Your task to perform on an android device: toggle location history Image 0: 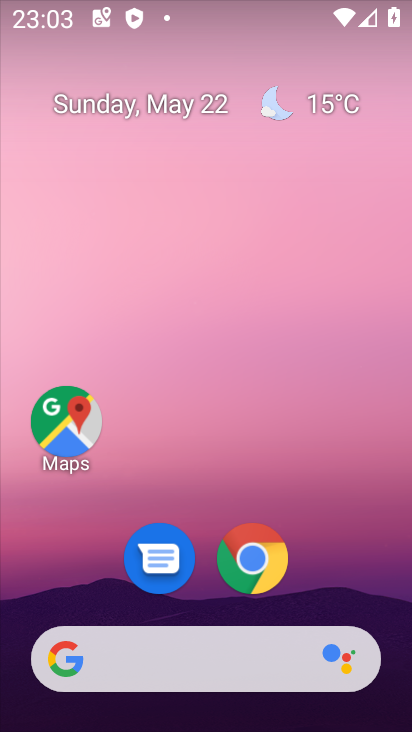
Step 0: click (69, 412)
Your task to perform on an android device: toggle location history Image 1: 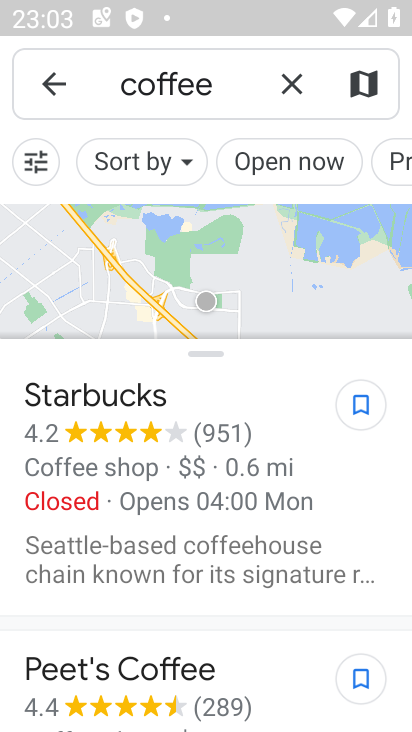
Step 1: click (283, 91)
Your task to perform on an android device: toggle location history Image 2: 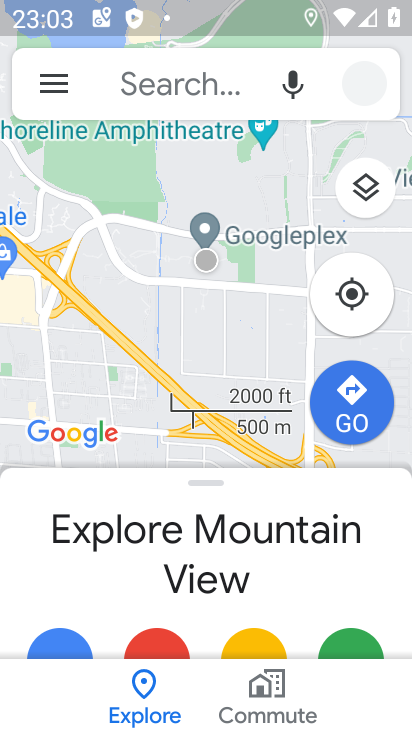
Step 2: click (58, 86)
Your task to perform on an android device: toggle location history Image 3: 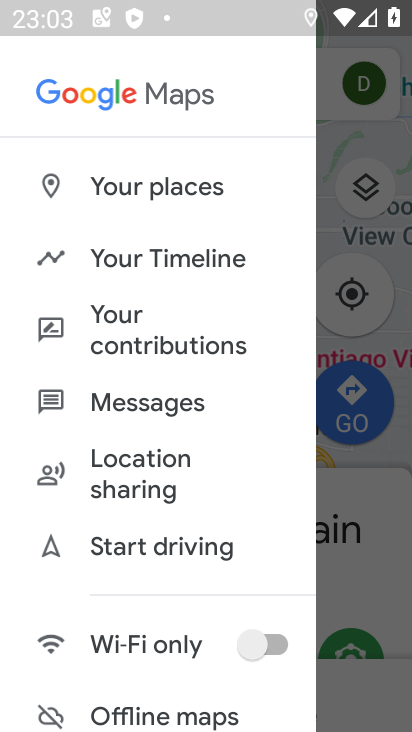
Step 3: click (150, 268)
Your task to perform on an android device: toggle location history Image 4: 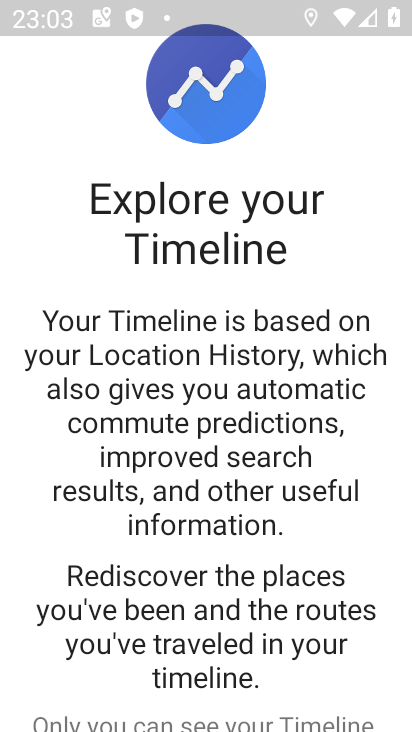
Step 4: drag from (239, 516) to (242, 173)
Your task to perform on an android device: toggle location history Image 5: 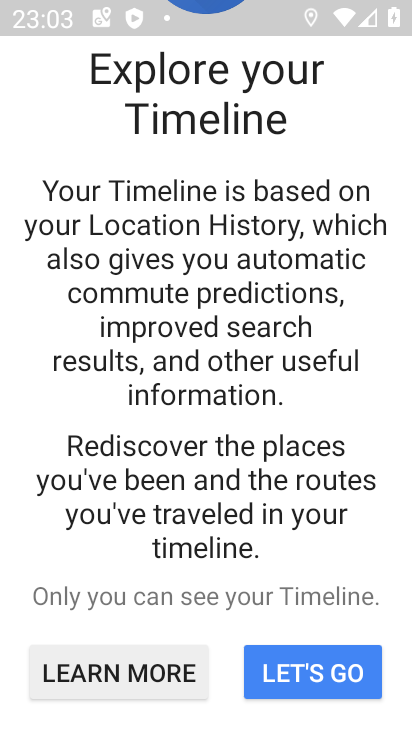
Step 5: click (311, 678)
Your task to perform on an android device: toggle location history Image 6: 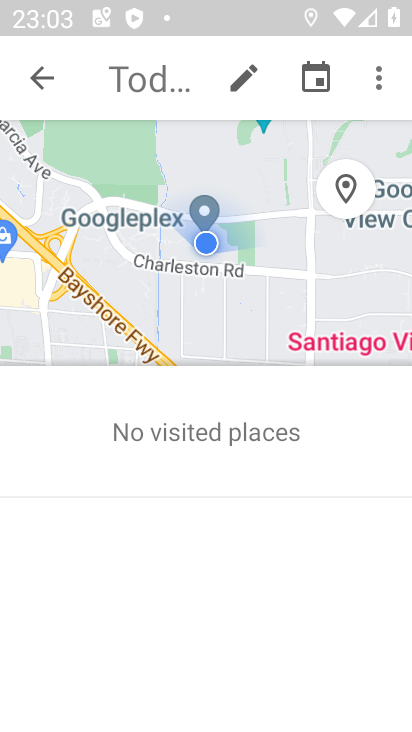
Step 6: click (376, 78)
Your task to perform on an android device: toggle location history Image 7: 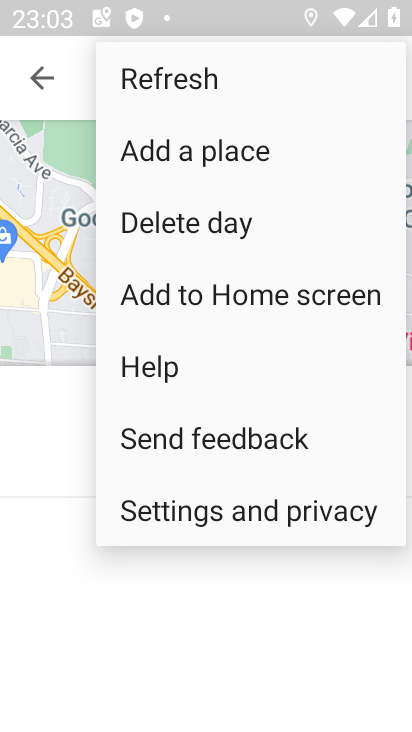
Step 7: click (158, 518)
Your task to perform on an android device: toggle location history Image 8: 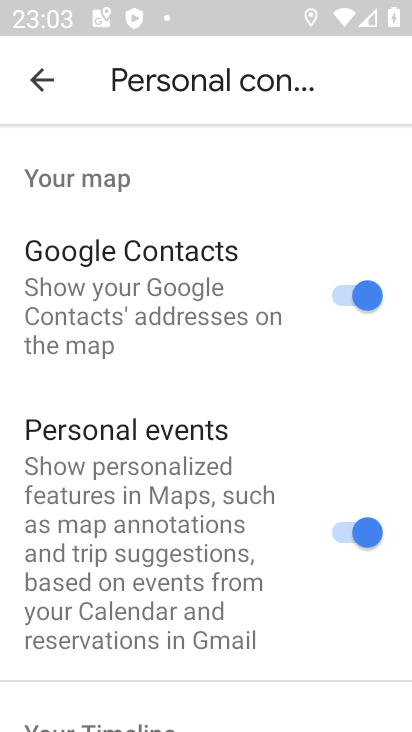
Step 8: drag from (140, 612) to (166, 139)
Your task to perform on an android device: toggle location history Image 9: 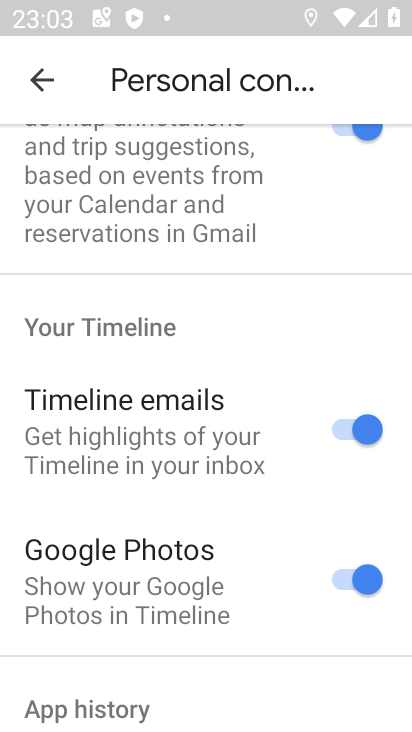
Step 9: drag from (139, 539) to (154, 156)
Your task to perform on an android device: toggle location history Image 10: 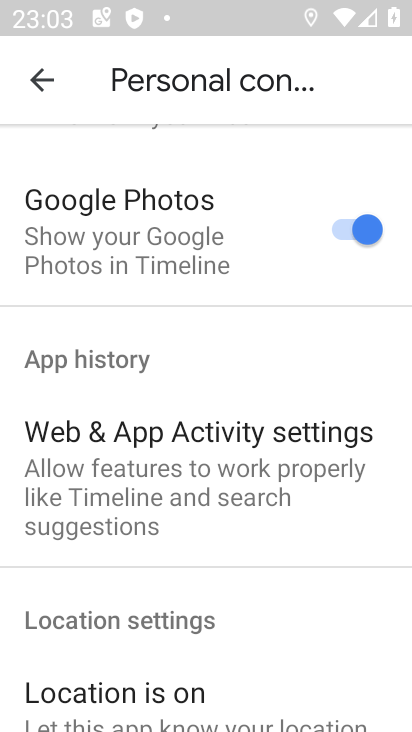
Step 10: drag from (130, 510) to (139, 178)
Your task to perform on an android device: toggle location history Image 11: 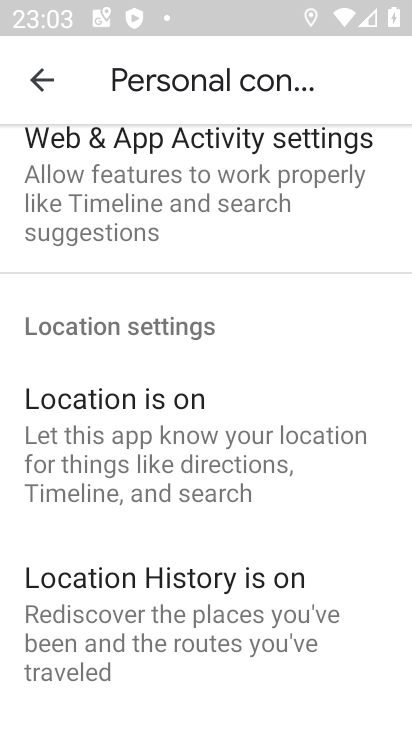
Step 11: click (115, 613)
Your task to perform on an android device: toggle location history Image 12: 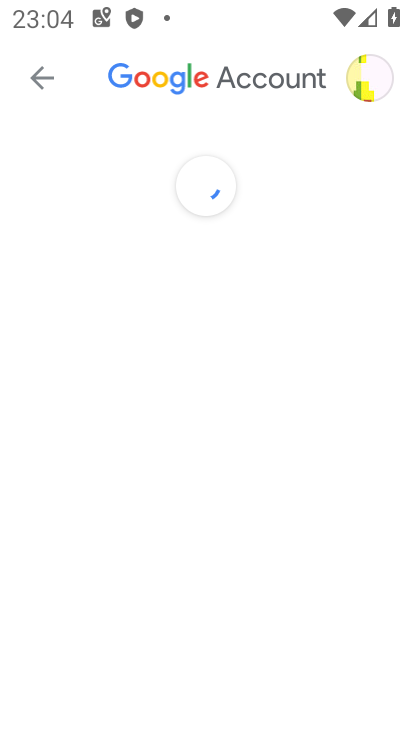
Step 12: drag from (189, 534) to (196, 88)
Your task to perform on an android device: toggle location history Image 13: 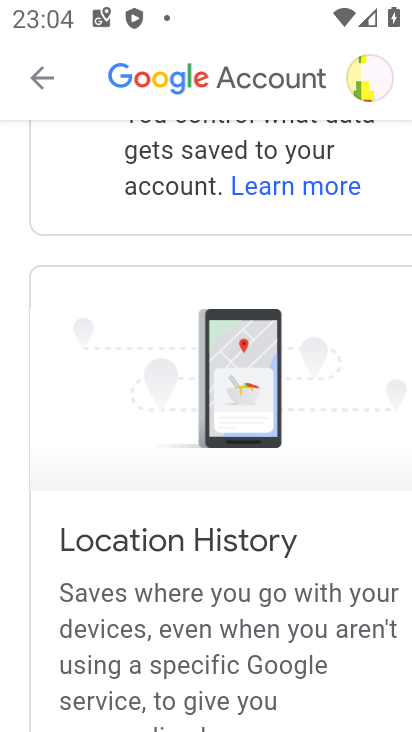
Step 13: drag from (176, 556) to (196, 161)
Your task to perform on an android device: toggle location history Image 14: 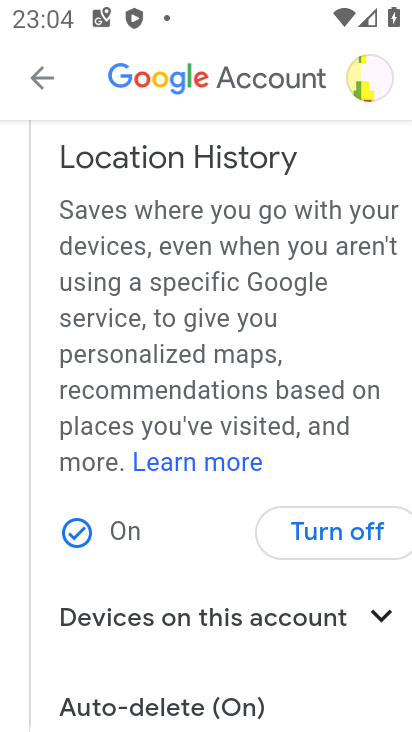
Step 14: click (330, 537)
Your task to perform on an android device: toggle location history Image 15: 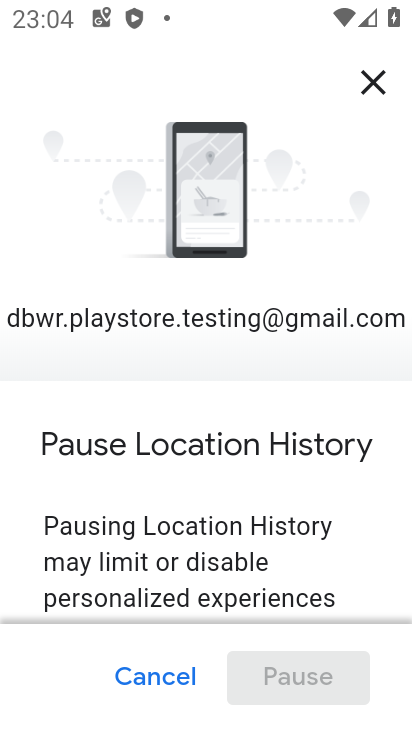
Step 15: drag from (240, 550) to (258, 17)
Your task to perform on an android device: toggle location history Image 16: 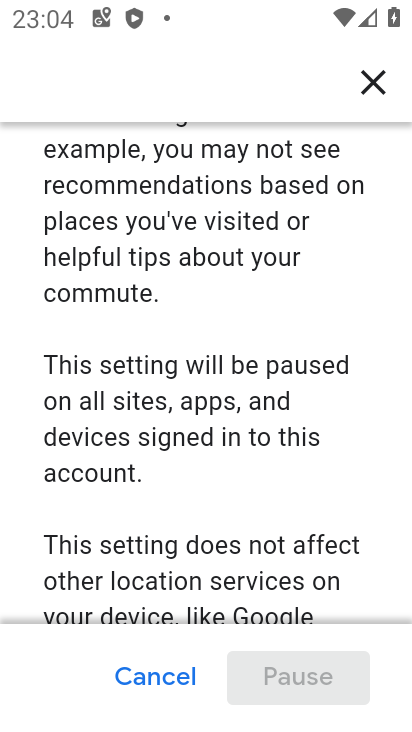
Step 16: drag from (187, 531) to (191, 146)
Your task to perform on an android device: toggle location history Image 17: 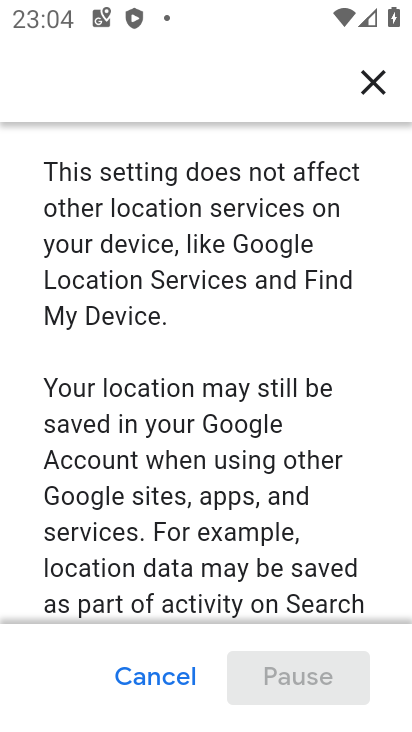
Step 17: drag from (184, 482) to (211, 128)
Your task to perform on an android device: toggle location history Image 18: 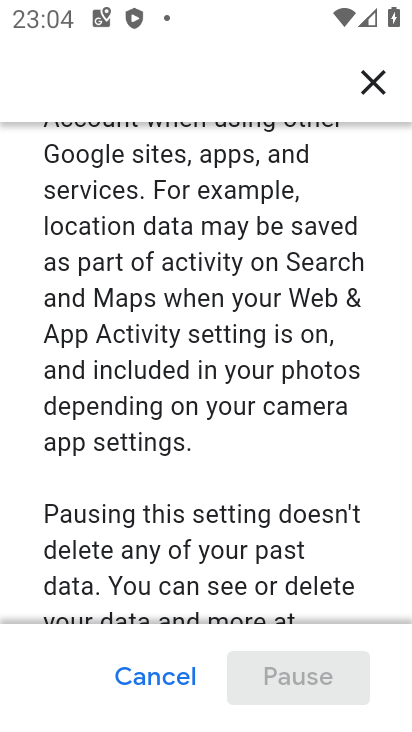
Step 18: drag from (216, 537) to (207, 131)
Your task to perform on an android device: toggle location history Image 19: 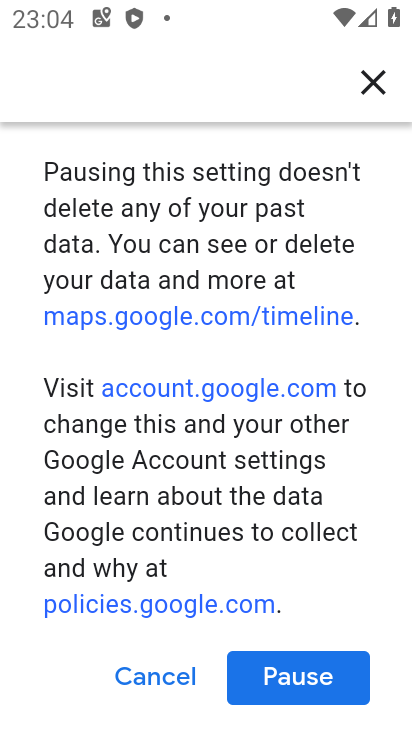
Step 19: drag from (200, 505) to (204, 106)
Your task to perform on an android device: toggle location history Image 20: 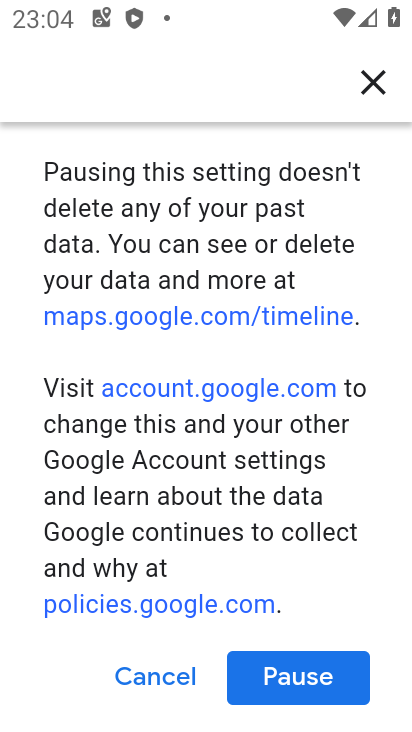
Step 20: click (295, 682)
Your task to perform on an android device: toggle location history Image 21: 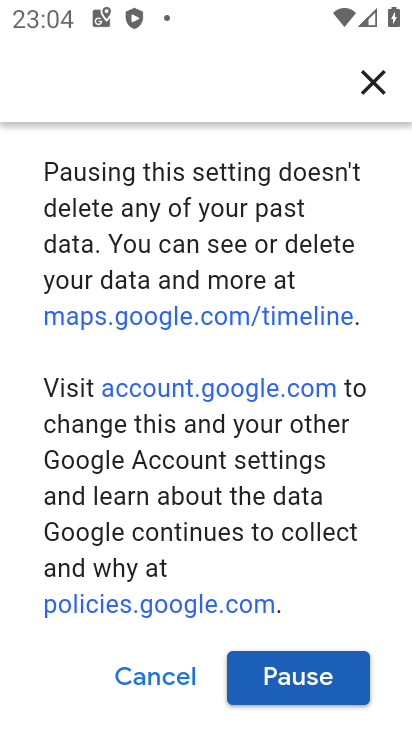
Step 21: click (302, 679)
Your task to perform on an android device: toggle location history Image 22: 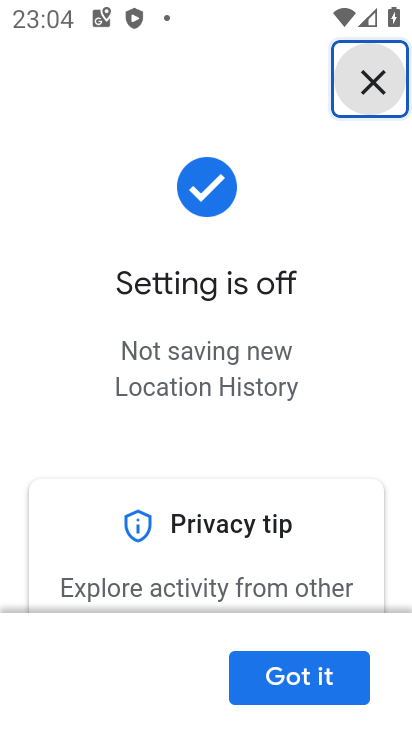
Step 22: click (296, 682)
Your task to perform on an android device: toggle location history Image 23: 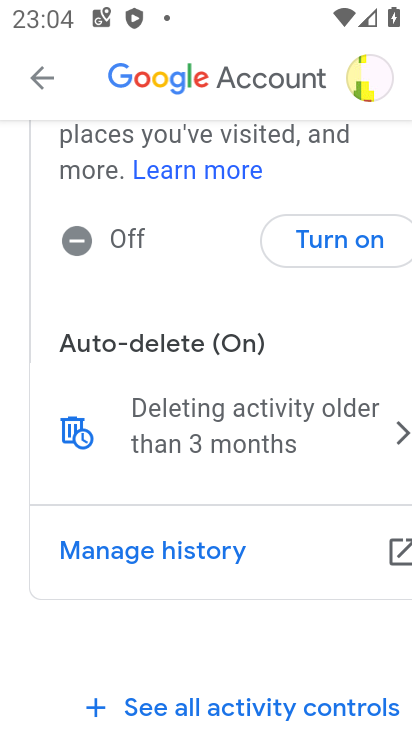
Step 23: task complete